Your task to perform on an android device: turn vacation reply on in the gmail app Image 0: 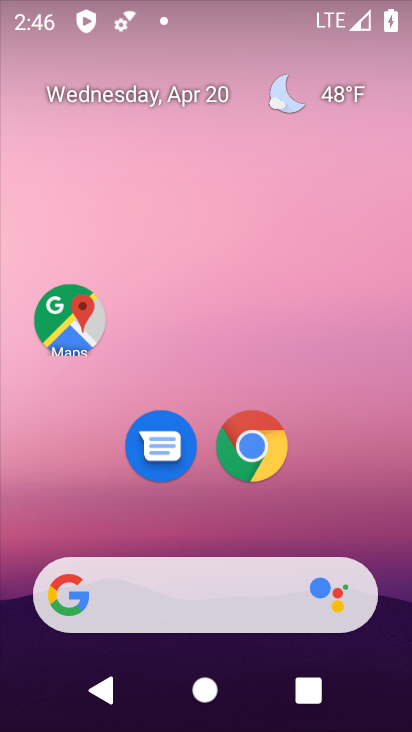
Step 0: drag from (375, 243) to (388, 129)
Your task to perform on an android device: turn vacation reply on in the gmail app Image 1: 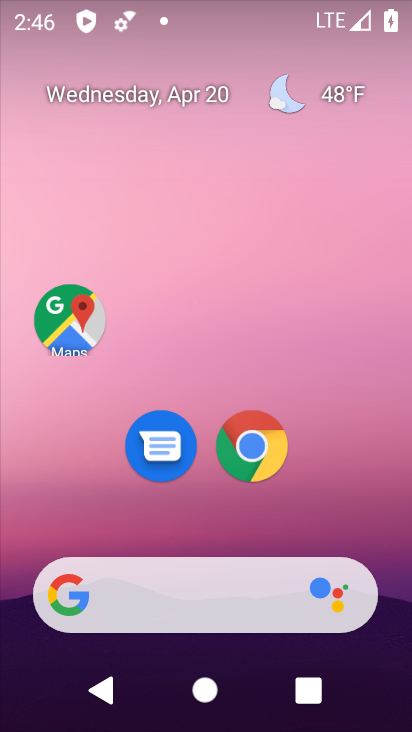
Step 1: drag from (328, 506) to (386, 155)
Your task to perform on an android device: turn vacation reply on in the gmail app Image 2: 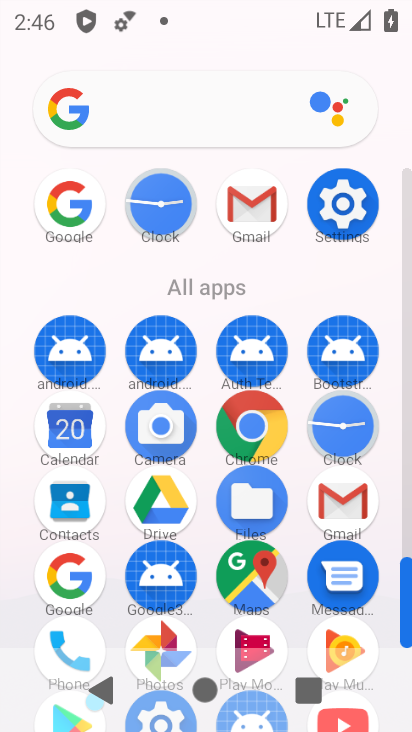
Step 2: click (341, 506)
Your task to perform on an android device: turn vacation reply on in the gmail app Image 3: 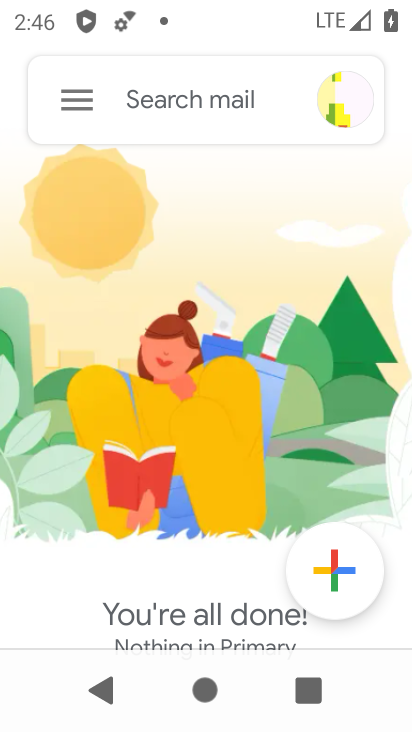
Step 3: click (71, 110)
Your task to perform on an android device: turn vacation reply on in the gmail app Image 4: 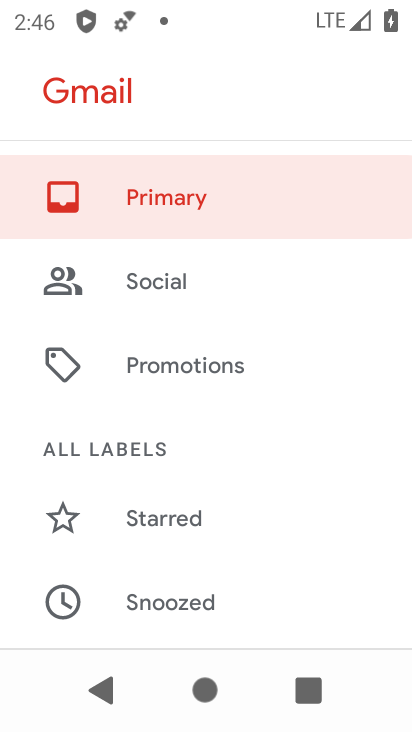
Step 4: drag from (219, 403) to (226, 231)
Your task to perform on an android device: turn vacation reply on in the gmail app Image 5: 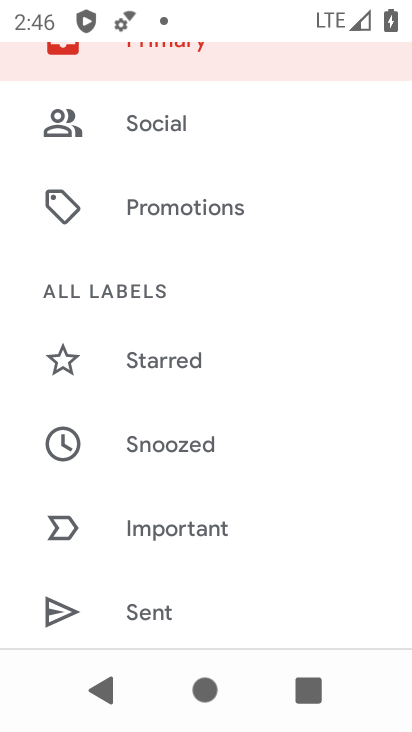
Step 5: drag from (180, 481) to (222, 231)
Your task to perform on an android device: turn vacation reply on in the gmail app Image 6: 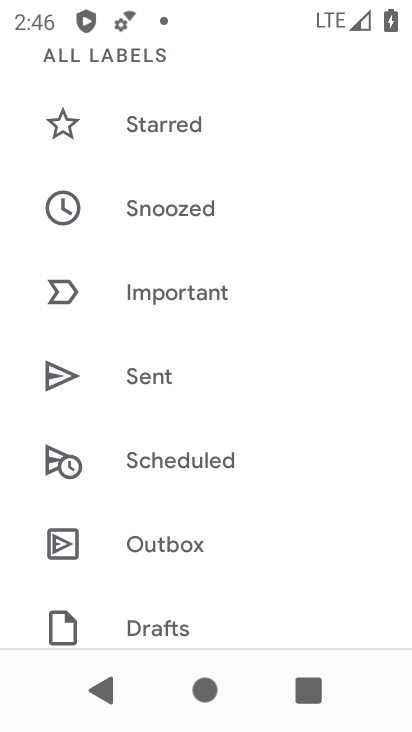
Step 6: drag from (163, 427) to (223, 157)
Your task to perform on an android device: turn vacation reply on in the gmail app Image 7: 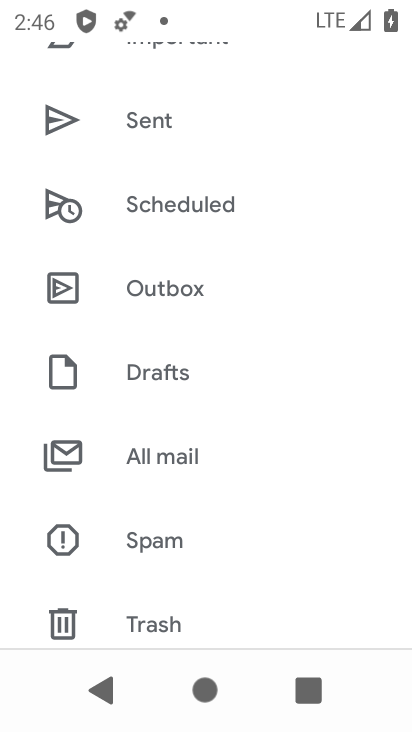
Step 7: drag from (135, 417) to (198, 150)
Your task to perform on an android device: turn vacation reply on in the gmail app Image 8: 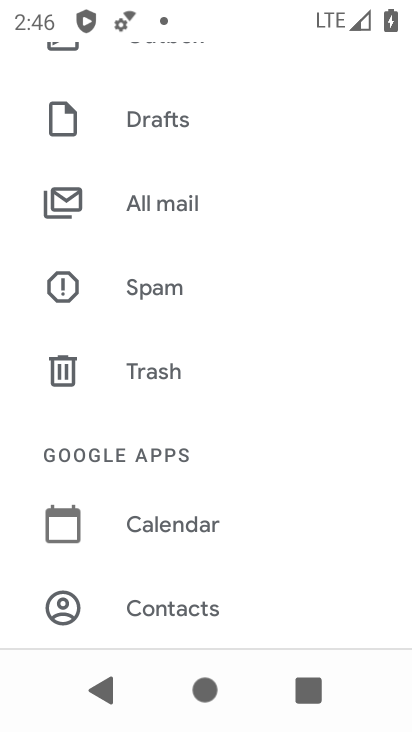
Step 8: drag from (161, 331) to (216, 108)
Your task to perform on an android device: turn vacation reply on in the gmail app Image 9: 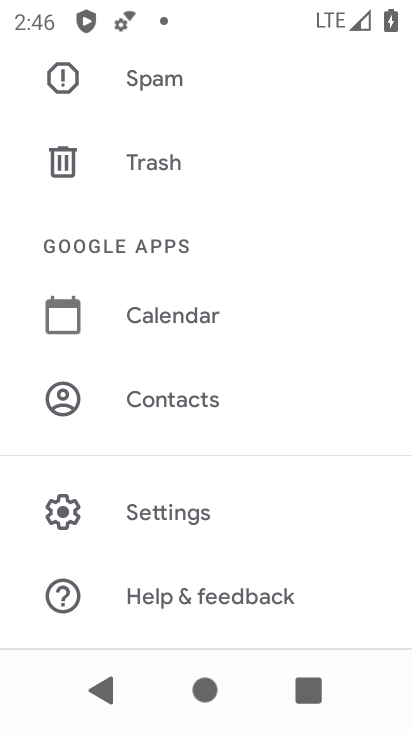
Step 9: drag from (178, 351) to (209, 116)
Your task to perform on an android device: turn vacation reply on in the gmail app Image 10: 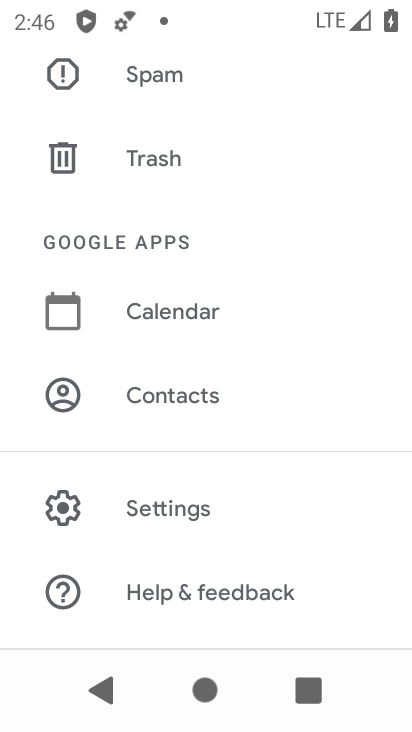
Step 10: click (170, 512)
Your task to perform on an android device: turn vacation reply on in the gmail app Image 11: 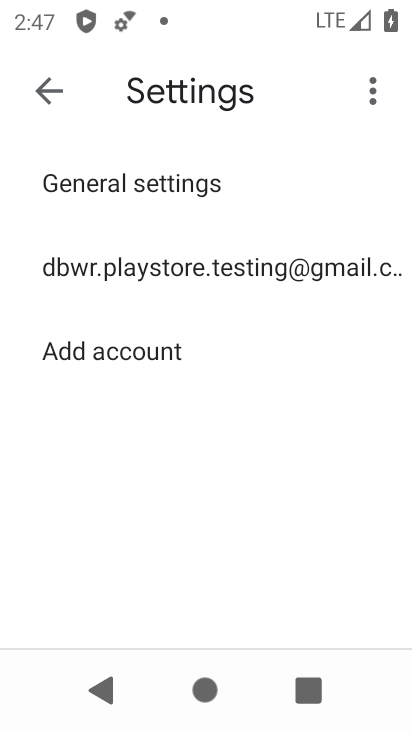
Step 11: click (212, 273)
Your task to perform on an android device: turn vacation reply on in the gmail app Image 12: 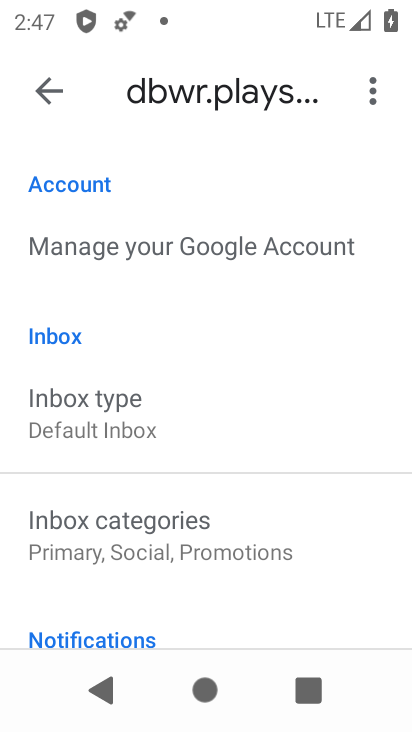
Step 12: drag from (168, 459) to (227, 273)
Your task to perform on an android device: turn vacation reply on in the gmail app Image 13: 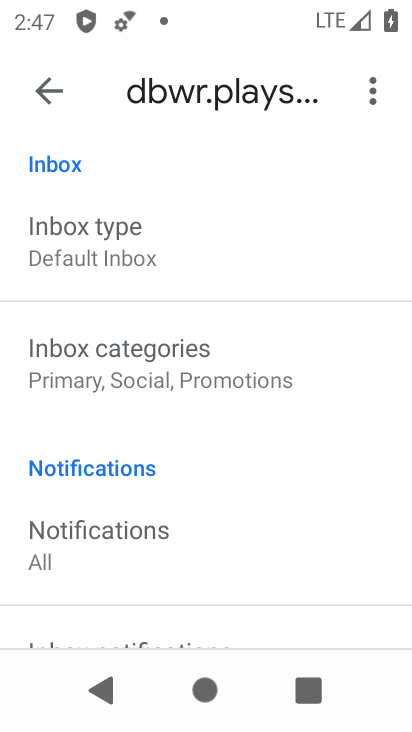
Step 13: drag from (149, 422) to (208, 222)
Your task to perform on an android device: turn vacation reply on in the gmail app Image 14: 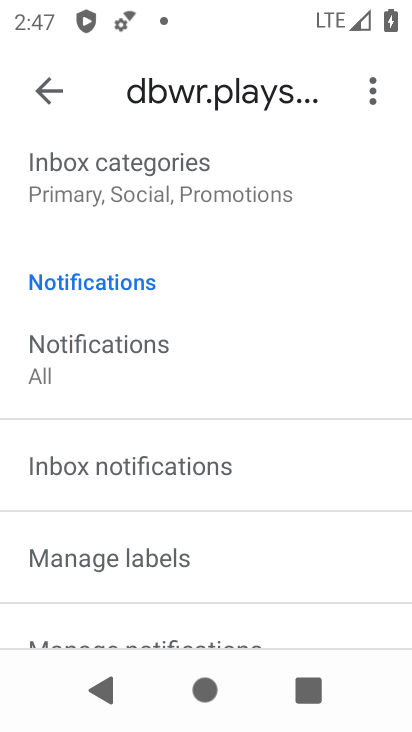
Step 14: drag from (119, 403) to (169, 166)
Your task to perform on an android device: turn vacation reply on in the gmail app Image 15: 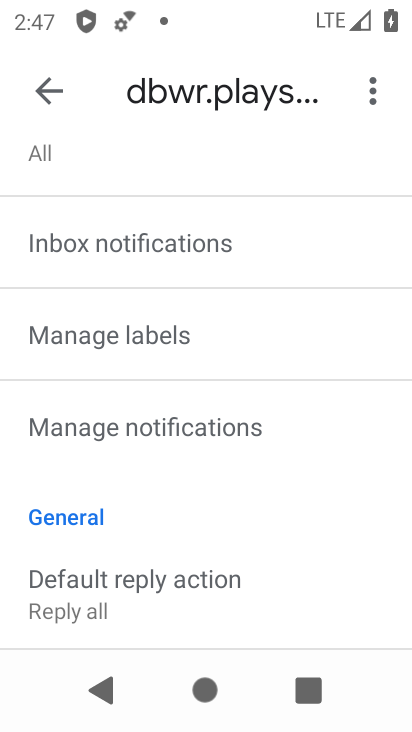
Step 15: drag from (138, 278) to (206, 57)
Your task to perform on an android device: turn vacation reply on in the gmail app Image 16: 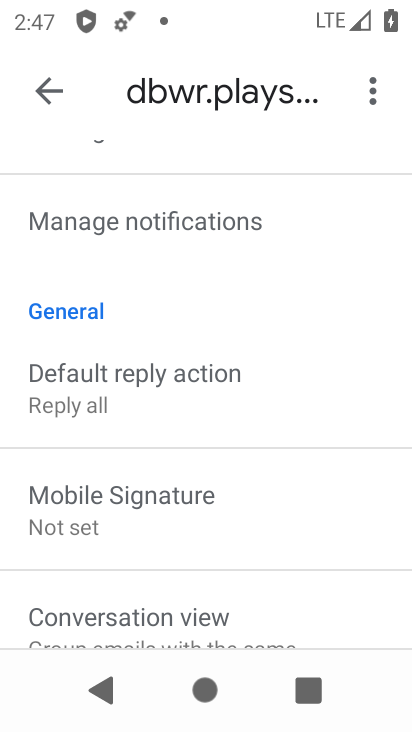
Step 16: drag from (127, 273) to (187, 42)
Your task to perform on an android device: turn vacation reply on in the gmail app Image 17: 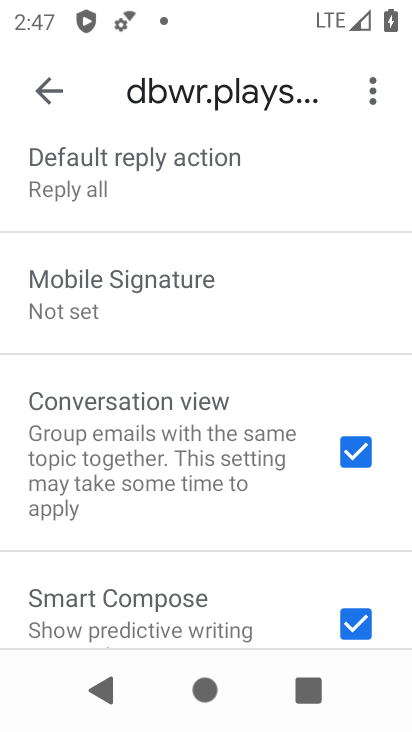
Step 17: drag from (123, 230) to (189, 70)
Your task to perform on an android device: turn vacation reply on in the gmail app Image 18: 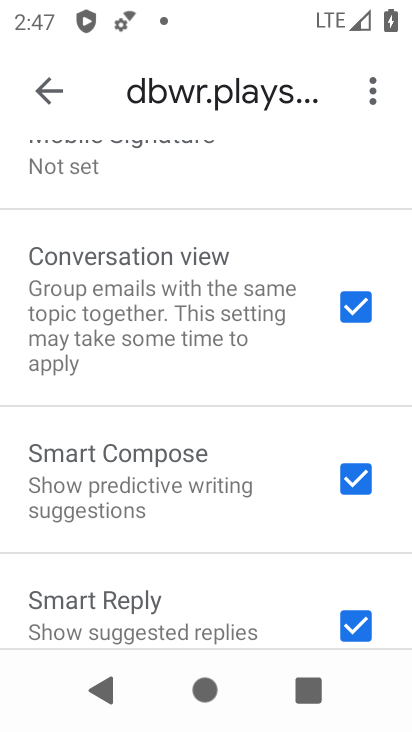
Step 18: drag from (171, 538) to (222, 306)
Your task to perform on an android device: turn vacation reply on in the gmail app Image 19: 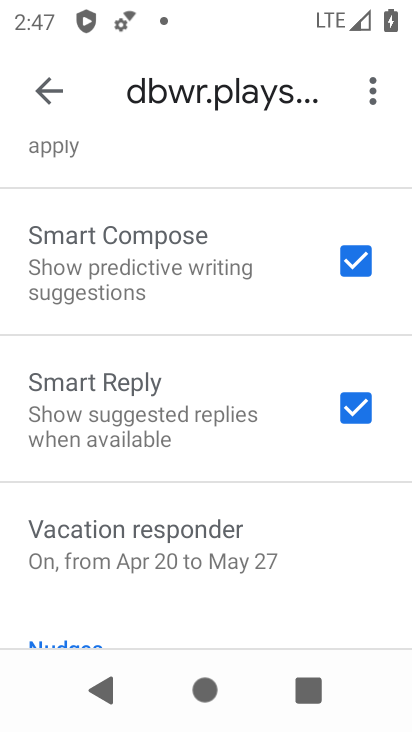
Step 19: click (105, 540)
Your task to perform on an android device: turn vacation reply on in the gmail app Image 20: 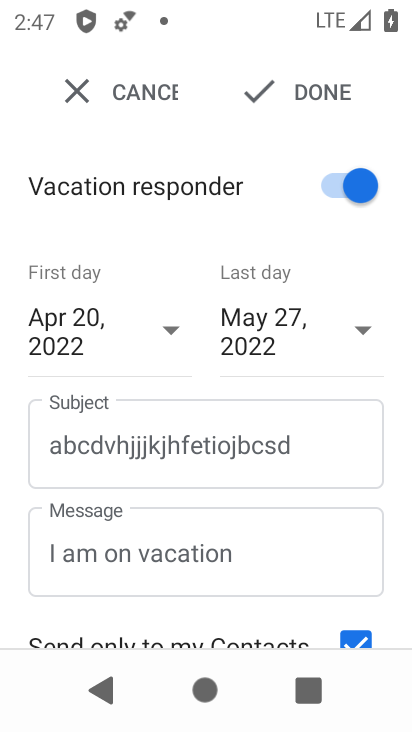
Step 20: task complete